Your task to perform on an android device: Clear all items from cart on costco. Add jbl flip 4 to the cart on costco Image 0: 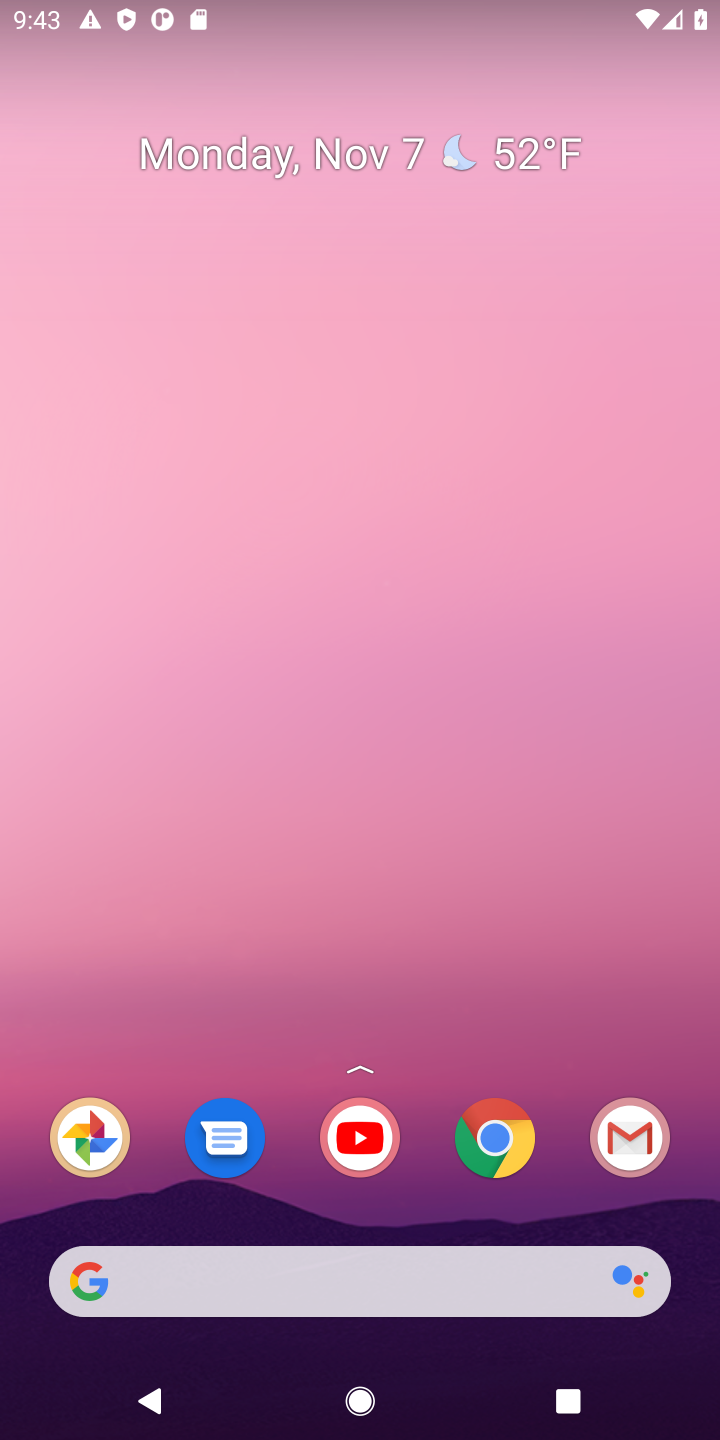
Step 0: drag from (405, 1219) to (352, 165)
Your task to perform on an android device: Clear all items from cart on costco. Add jbl flip 4 to the cart on costco Image 1: 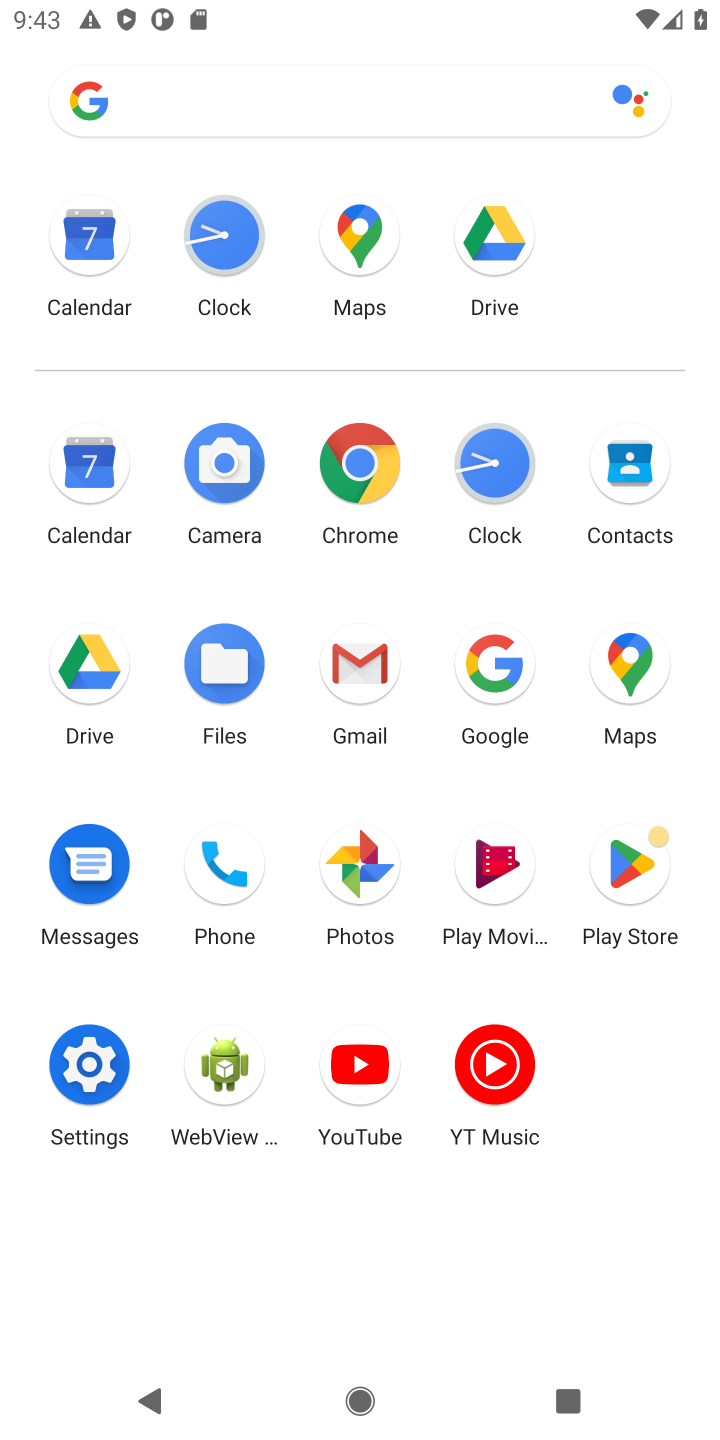
Step 1: click (367, 460)
Your task to perform on an android device: Clear all items from cart on costco. Add jbl flip 4 to the cart on costco Image 2: 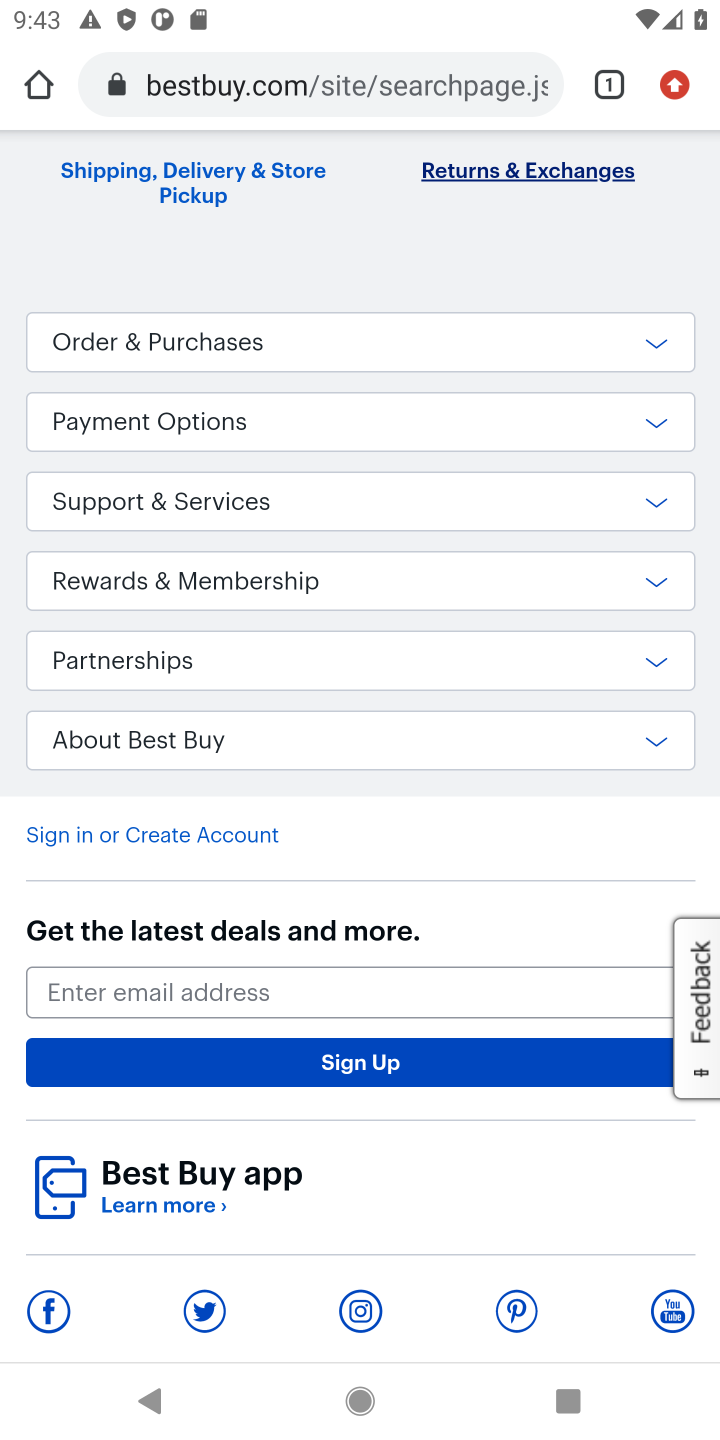
Step 2: click (415, 72)
Your task to perform on an android device: Clear all items from cart on costco. Add jbl flip 4 to the cart on costco Image 3: 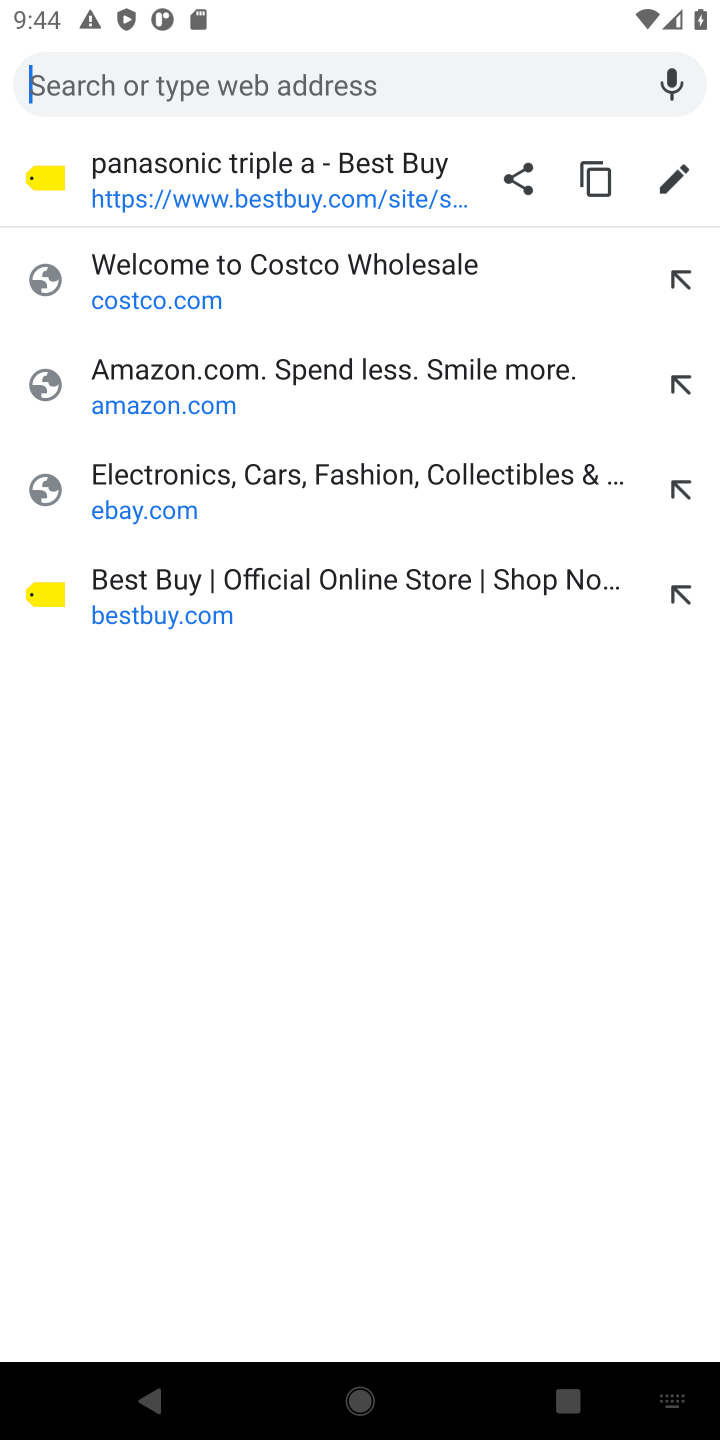
Step 3: type "costco.com"
Your task to perform on an android device: Clear all items from cart on costco. Add jbl flip 4 to the cart on costco Image 4: 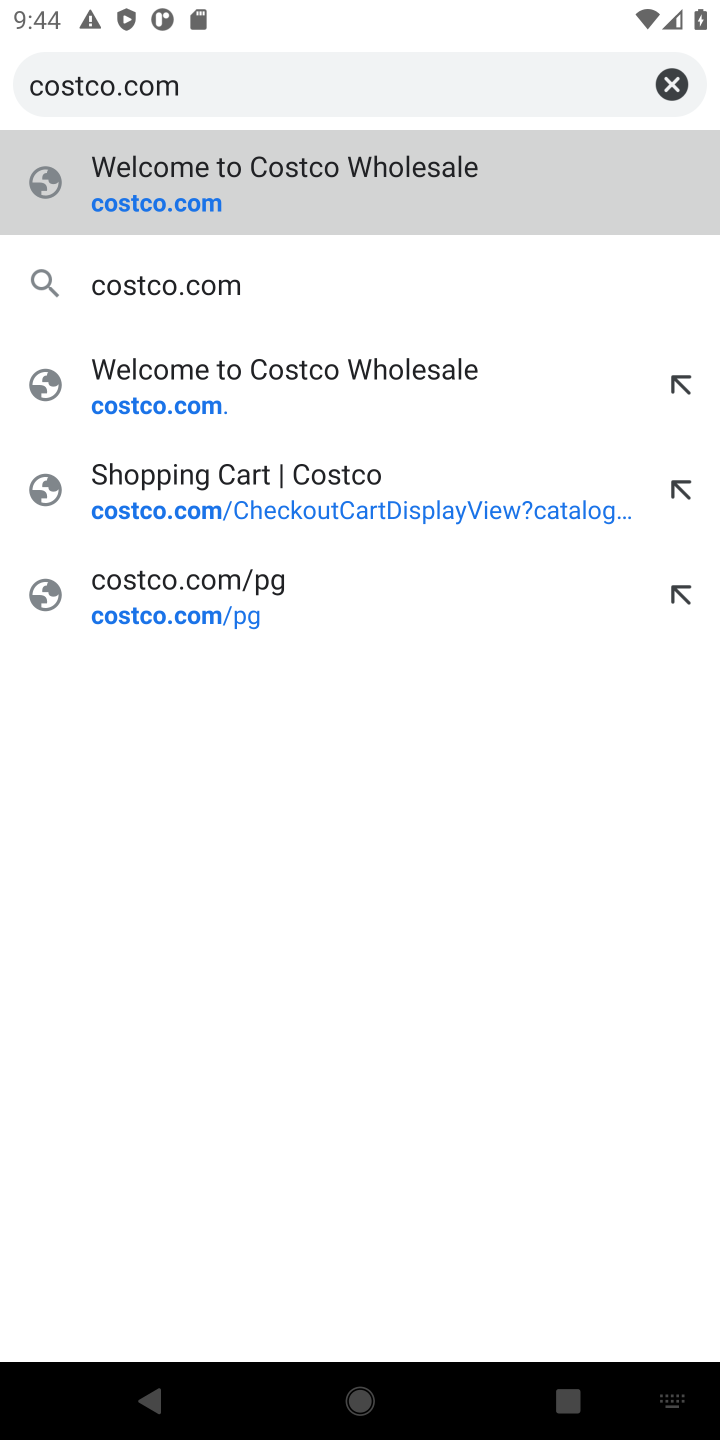
Step 4: press enter
Your task to perform on an android device: Clear all items from cart on costco. Add jbl flip 4 to the cart on costco Image 5: 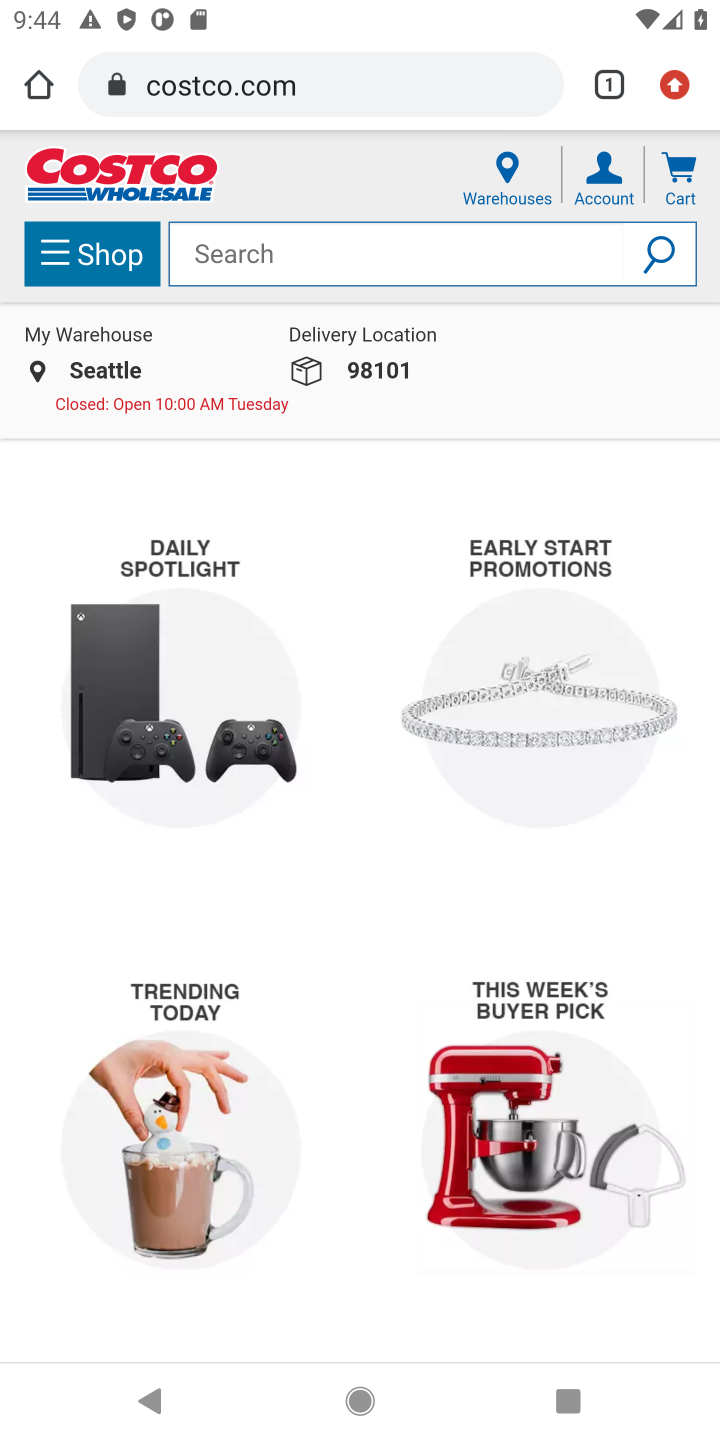
Step 5: click (696, 170)
Your task to perform on an android device: Clear all items from cart on costco. Add jbl flip 4 to the cart on costco Image 6: 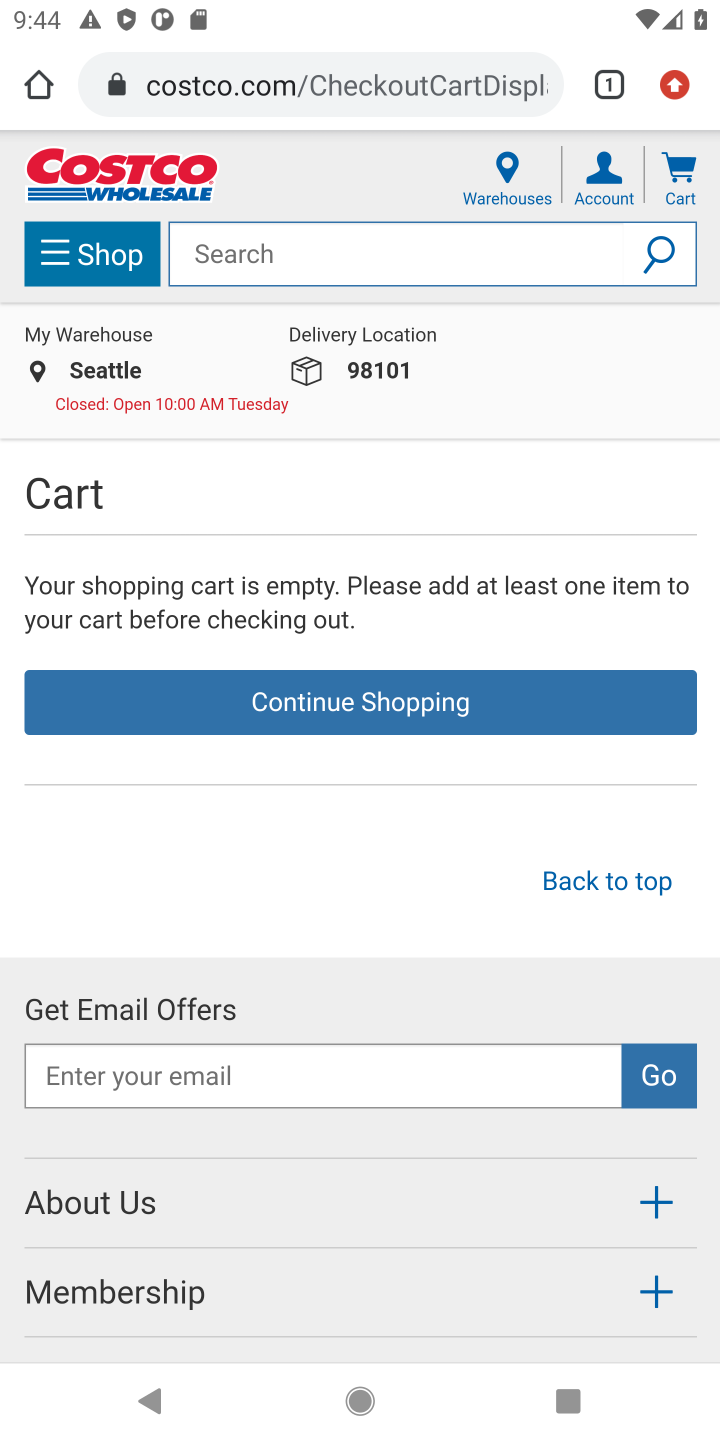
Step 6: click (495, 257)
Your task to perform on an android device: Clear all items from cart on costco. Add jbl flip 4 to the cart on costco Image 7: 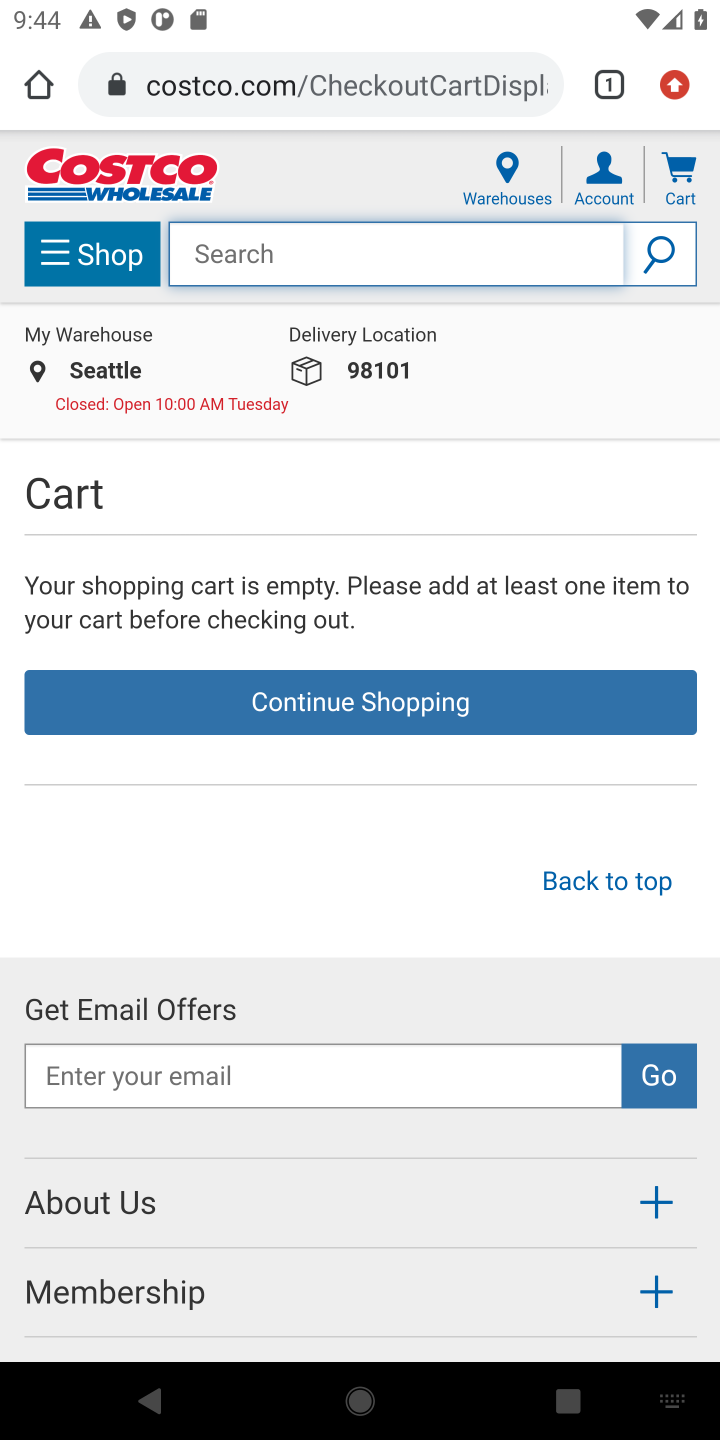
Step 7: type "jbl flip 4"
Your task to perform on an android device: Clear all items from cart on costco. Add jbl flip 4 to the cart on costco Image 8: 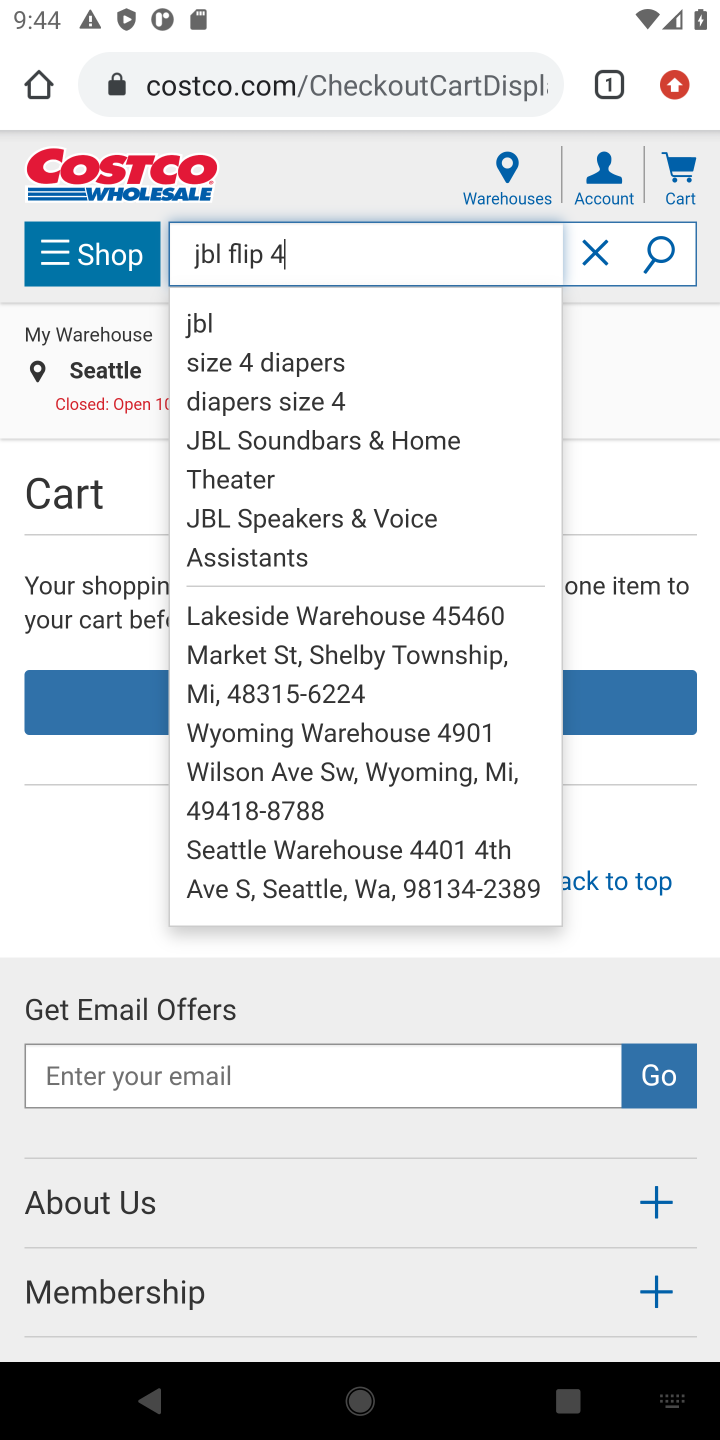
Step 8: press enter
Your task to perform on an android device: Clear all items from cart on costco. Add jbl flip 4 to the cart on costco Image 9: 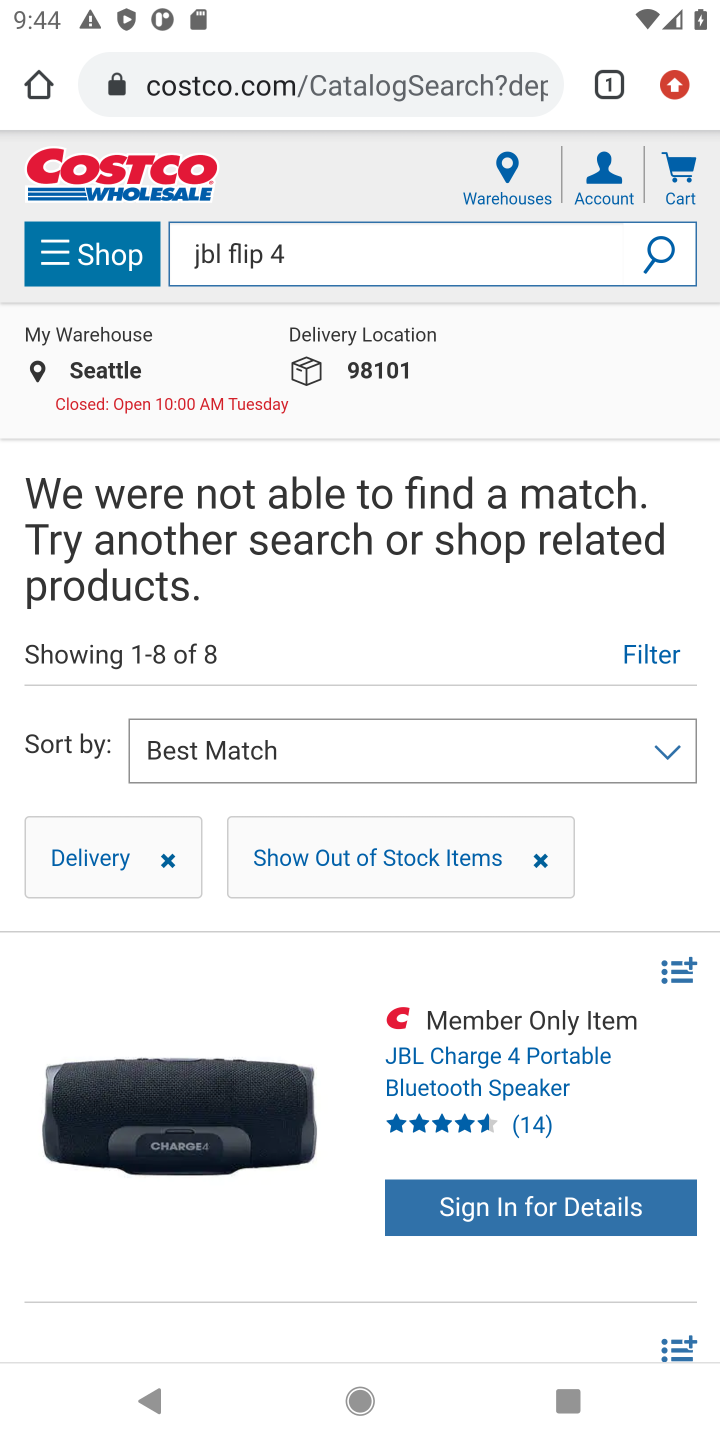
Step 9: task complete